Your task to perform on an android device: Open Google Chrome and click the shortcut for Amazon.com Image 0: 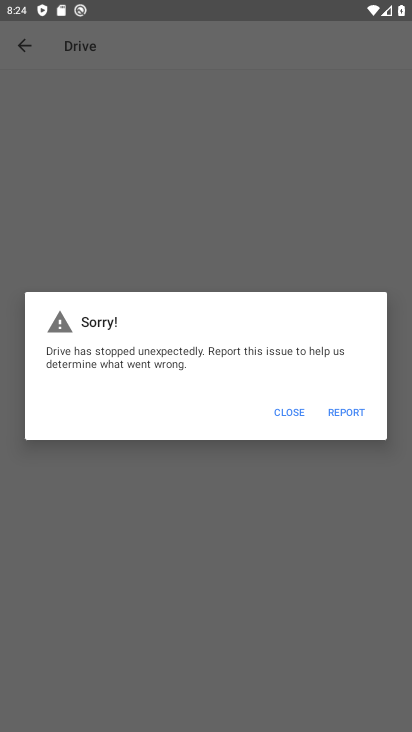
Step 0: press home button
Your task to perform on an android device: Open Google Chrome and click the shortcut for Amazon.com Image 1: 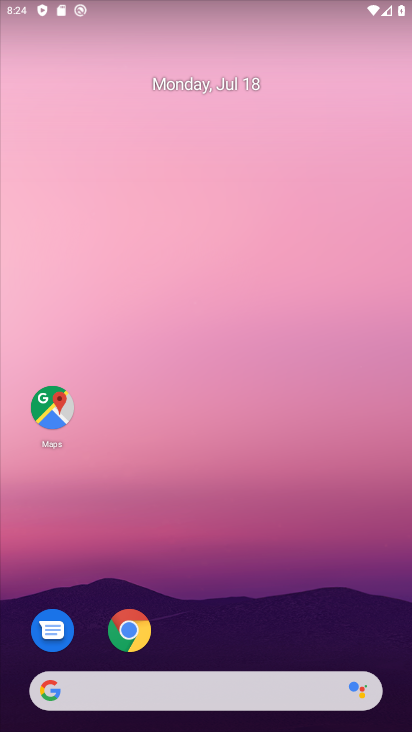
Step 1: drag from (208, 607) to (248, 101)
Your task to perform on an android device: Open Google Chrome and click the shortcut for Amazon.com Image 2: 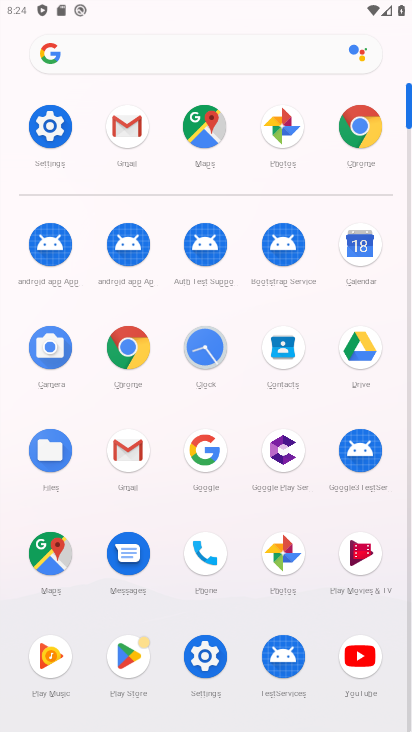
Step 2: click (122, 348)
Your task to perform on an android device: Open Google Chrome and click the shortcut for Amazon.com Image 3: 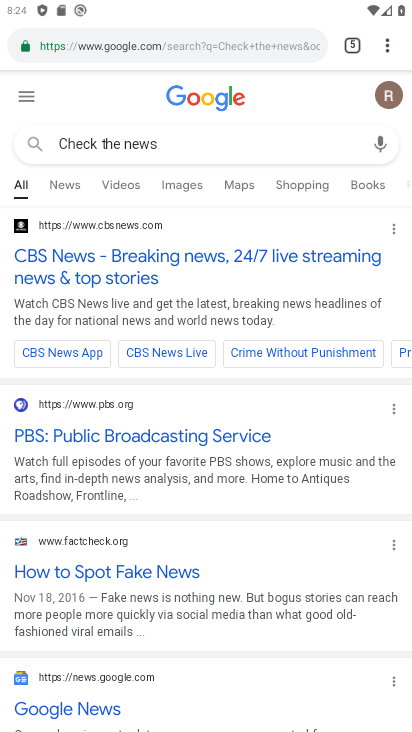
Step 3: click (391, 39)
Your task to perform on an android device: Open Google Chrome and click the shortcut for Amazon.com Image 4: 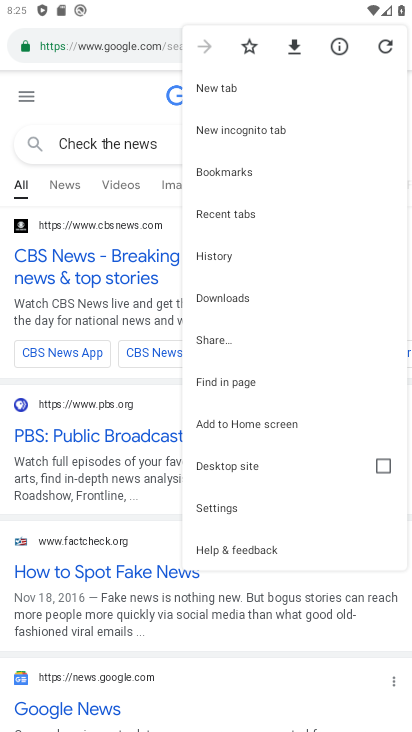
Step 4: click (255, 86)
Your task to perform on an android device: Open Google Chrome and click the shortcut for Amazon.com Image 5: 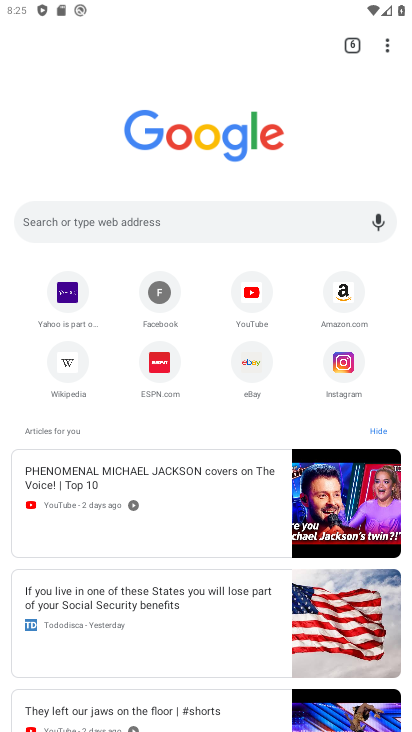
Step 5: click (356, 281)
Your task to perform on an android device: Open Google Chrome and click the shortcut for Amazon.com Image 6: 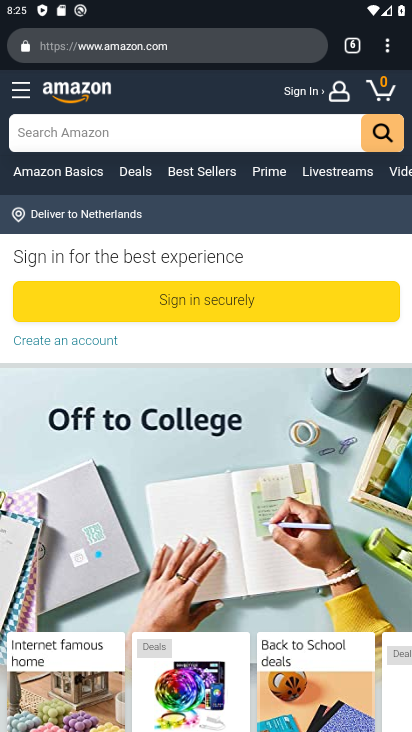
Step 6: task complete